Your task to perform on an android device: check the backup settings in the google photos Image 0: 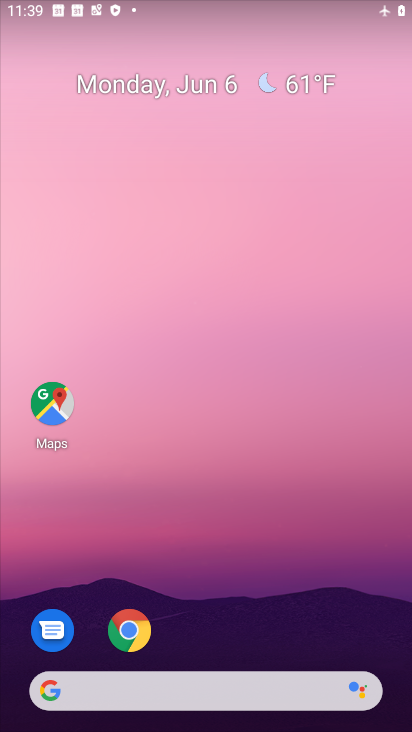
Step 0: drag from (285, 623) to (299, 146)
Your task to perform on an android device: check the backup settings in the google photos Image 1: 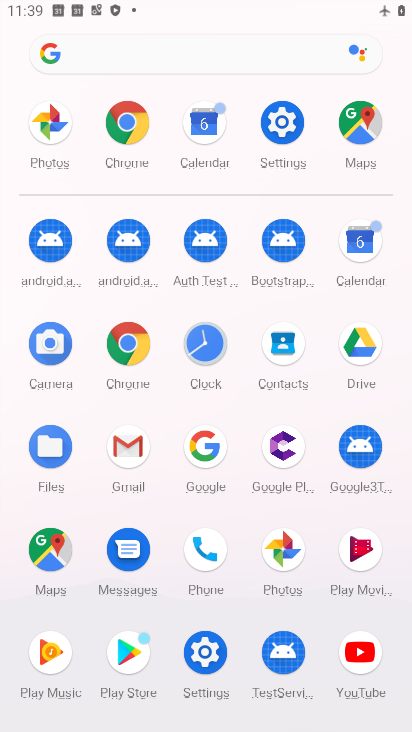
Step 1: click (277, 561)
Your task to perform on an android device: check the backup settings in the google photos Image 2: 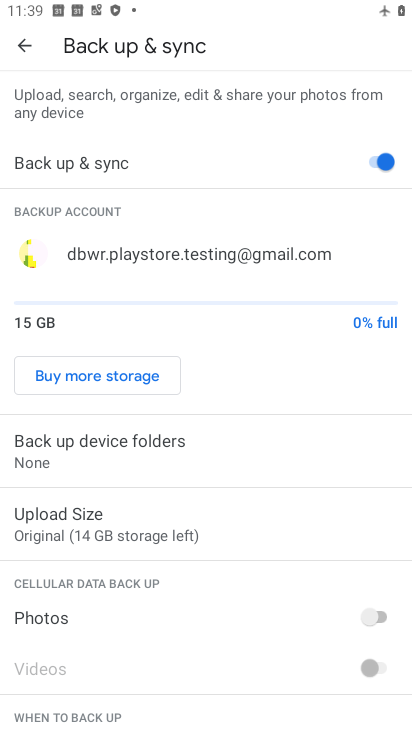
Step 2: task complete